Your task to perform on an android device: see sites visited before in the chrome app Image 0: 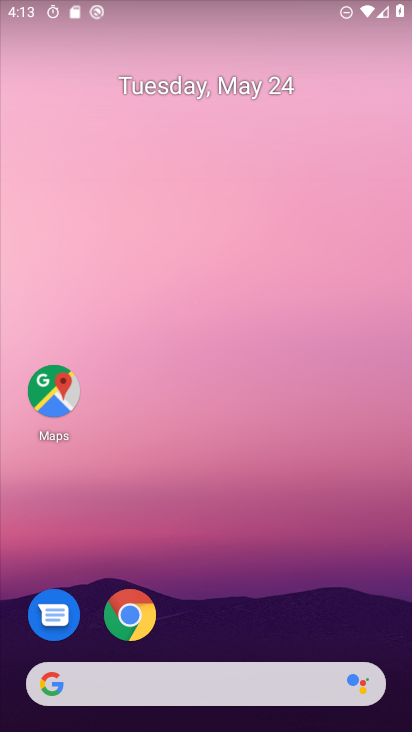
Step 0: click (121, 612)
Your task to perform on an android device: see sites visited before in the chrome app Image 1: 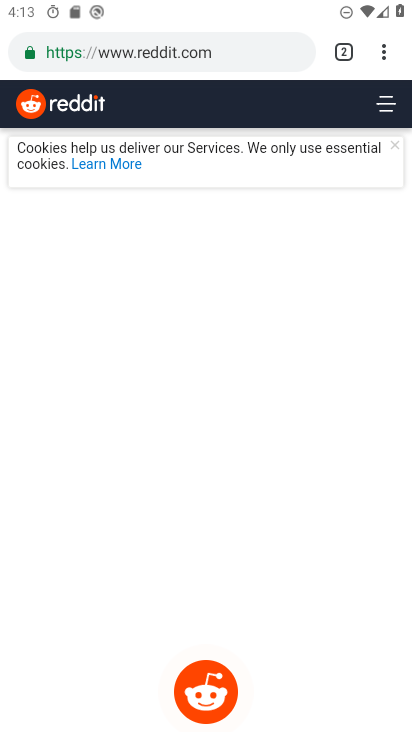
Step 1: click (384, 44)
Your task to perform on an android device: see sites visited before in the chrome app Image 2: 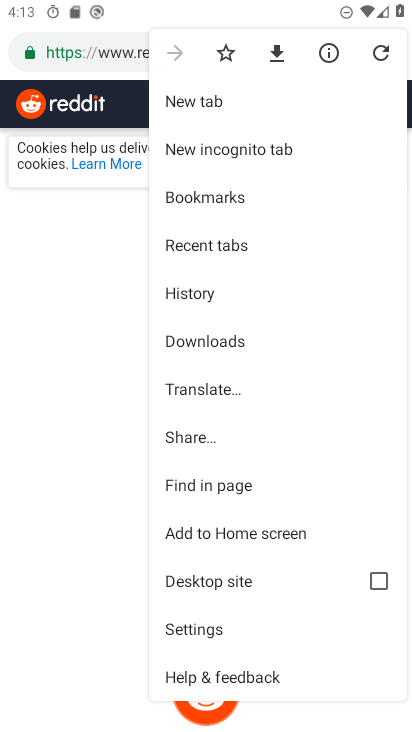
Step 2: click (235, 296)
Your task to perform on an android device: see sites visited before in the chrome app Image 3: 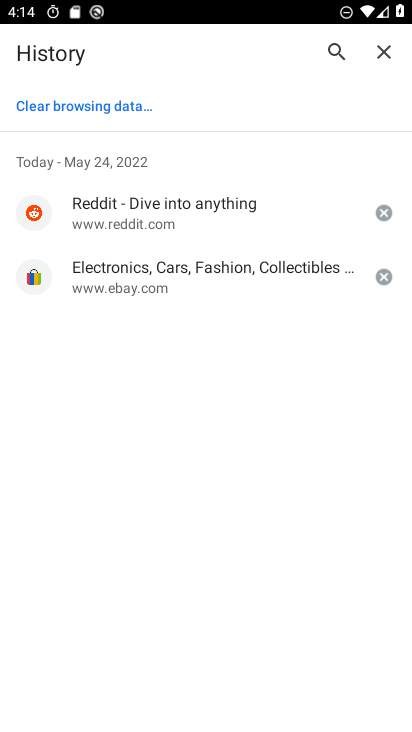
Step 3: task complete